Your task to perform on an android device: Open the phone app and click the voicemail tab. Image 0: 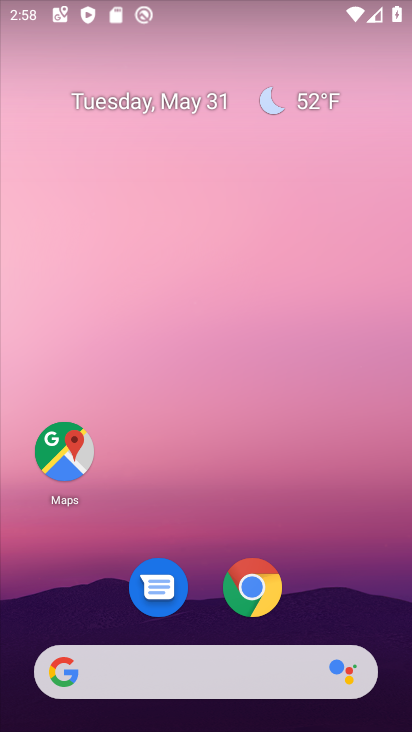
Step 0: drag from (380, 613) to (254, 194)
Your task to perform on an android device: Open the phone app and click the voicemail tab. Image 1: 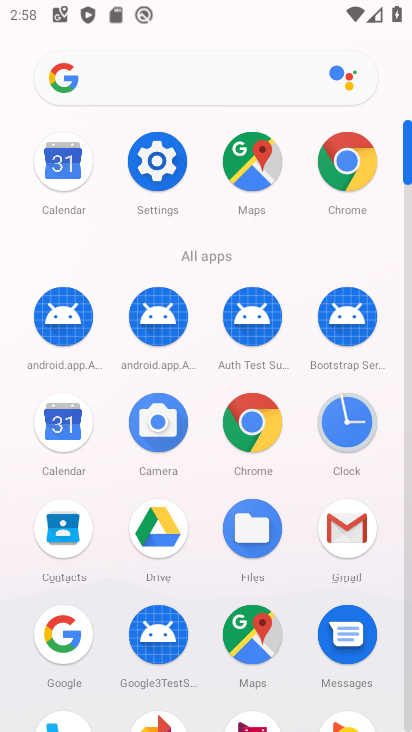
Step 1: click (410, 700)
Your task to perform on an android device: Open the phone app and click the voicemail tab. Image 2: 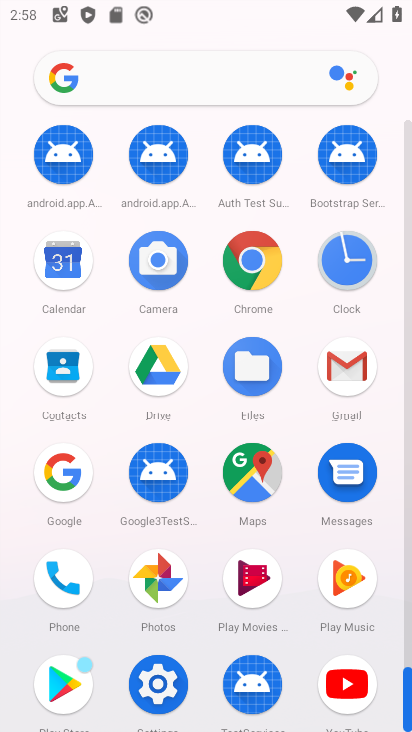
Step 2: click (60, 596)
Your task to perform on an android device: Open the phone app and click the voicemail tab. Image 3: 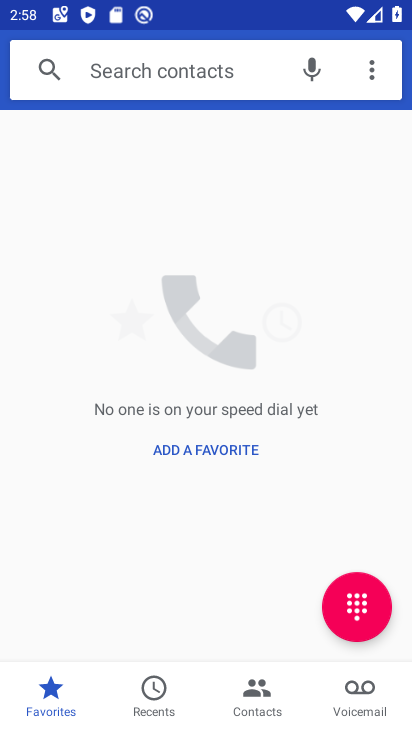
Step 3: click (347, 693)
Your task to perform on an android device: Open the phone app and click the voicemail tab. Image 4: 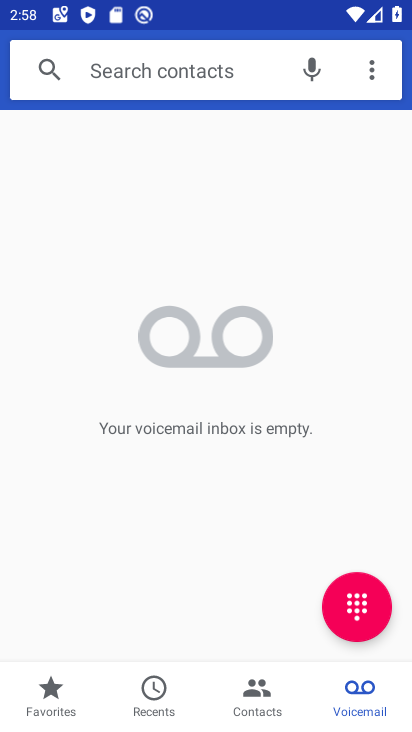
Step 4: task complete